Your task to perform on an android device: Open CNN.com Image 0: 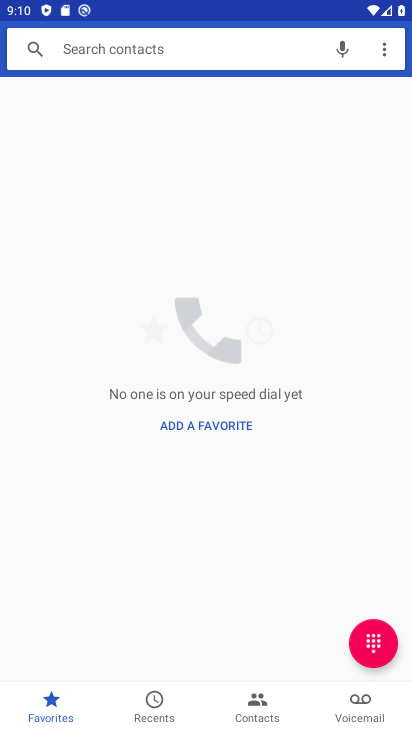
Step 0: press home button
Your task to perform on an android device: Open CNN.com Image 1: 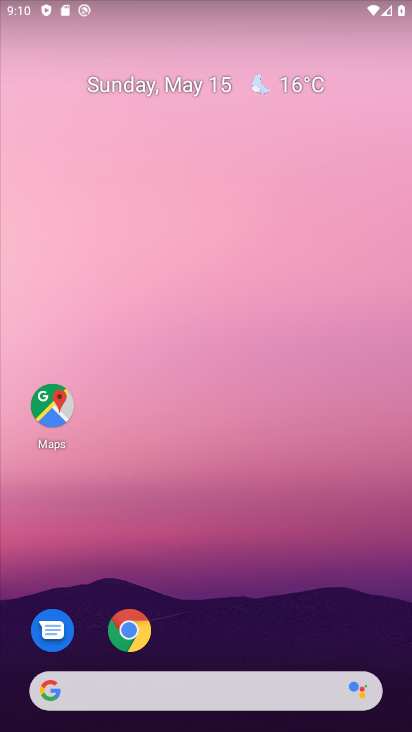
Step 1: click (148, 617)
Your task to perform on an android device: Open CNN.com Image 2: 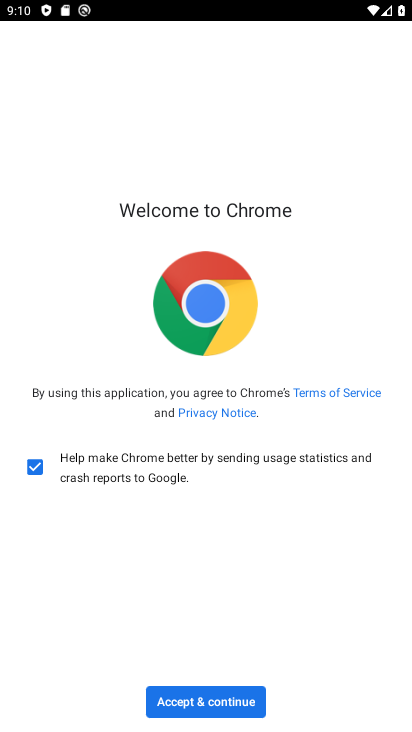
Step 2: click (189, 692)
Your task to perform on an android device: Open CNN.com Image 3: 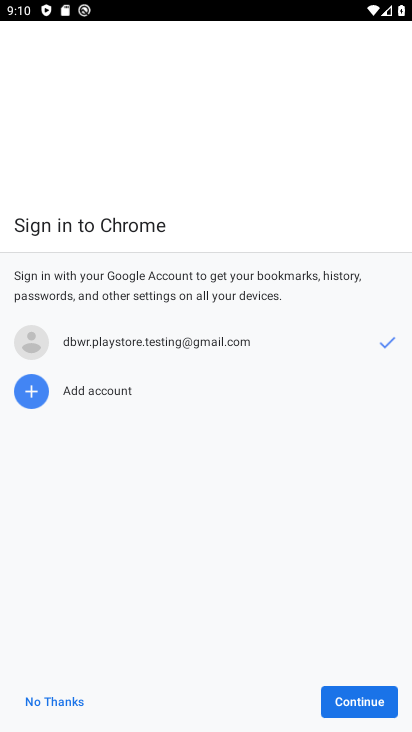
Step 3: click (350, 695)
Your task to perform on an android device: Open CNN.com Image 4: 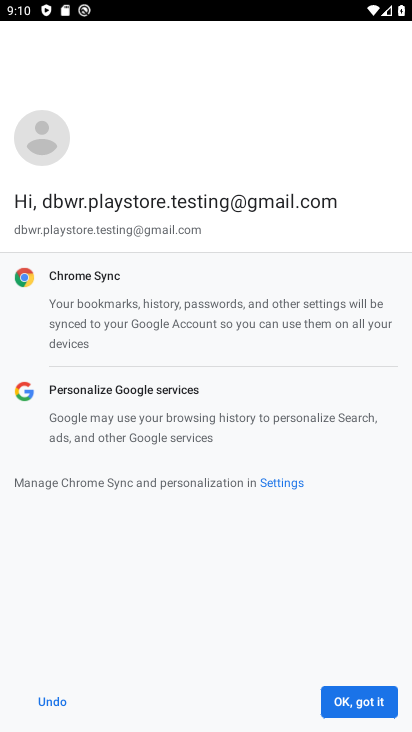
Step 4: click (351, 694)
Your task to perform on an android device: Open CNN.com Image 5: 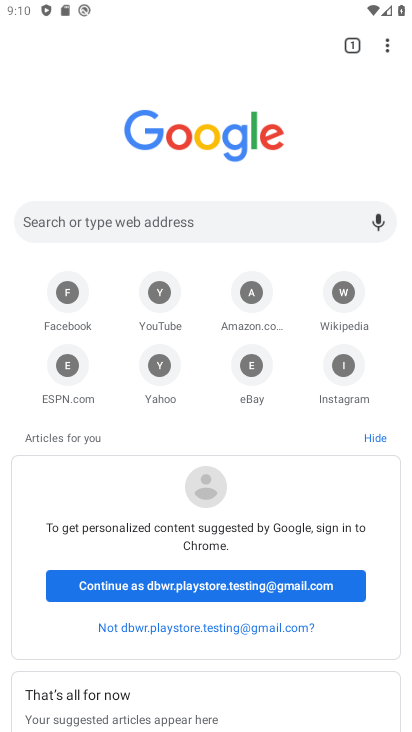
Step 5: click (154, 49)
Your task to perform on an android device: Open CNN.com Image 6: 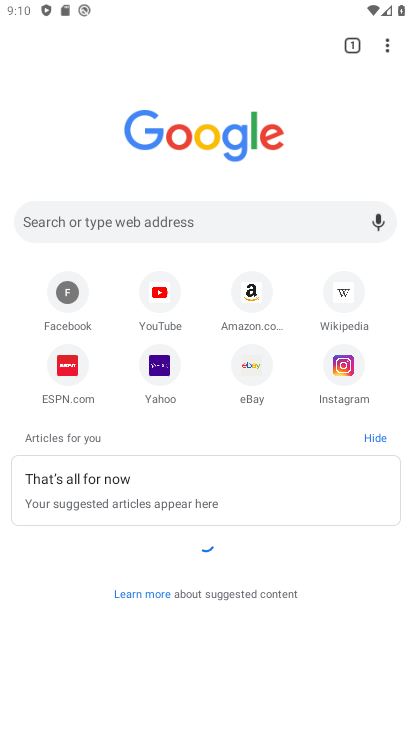
Step 6: click (145, 203)
Your task to perform on an android device: Open CNN.com Image 7: 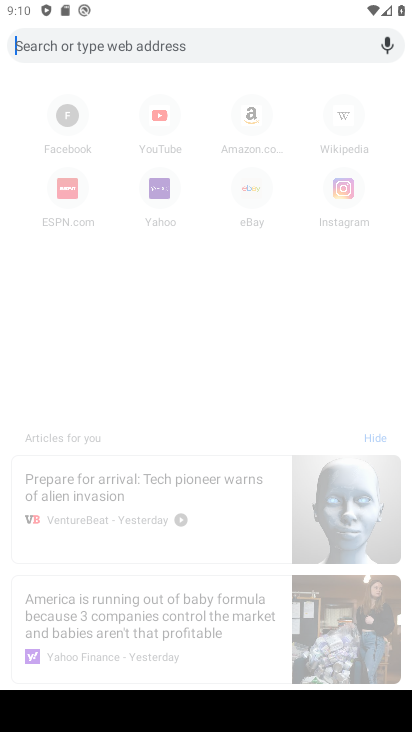
Step 7: type "CNN.com"
Your task to perform on an android device: Open CNN.com Image 8: 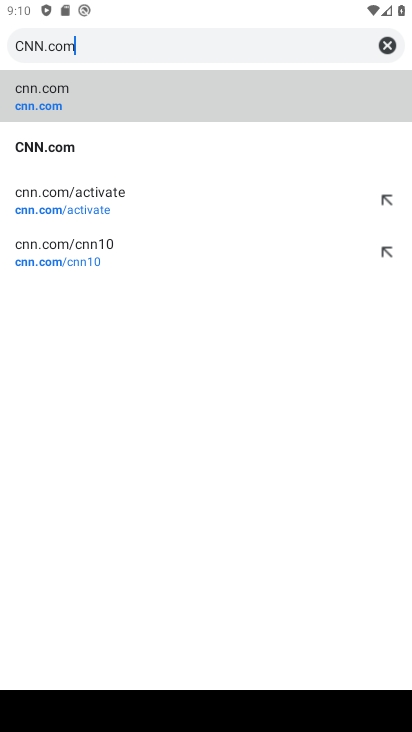
Step 8: click (45, 98)
Your task to perform on an android device: Open CNN.com Image 9: 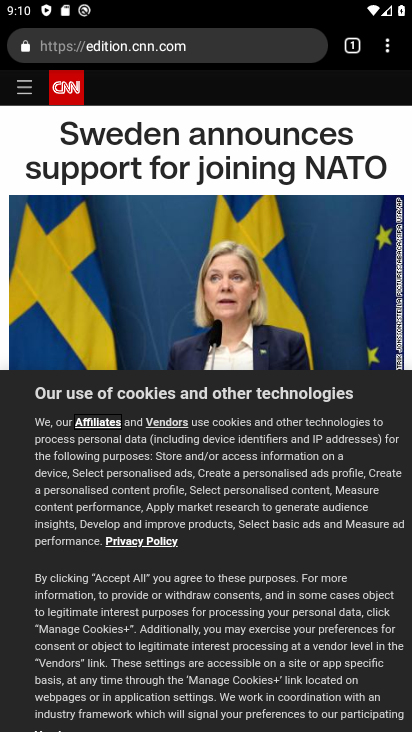
Step 9: task complete